Your task to perform on an android device: change your default location settings in chrome Image 0: 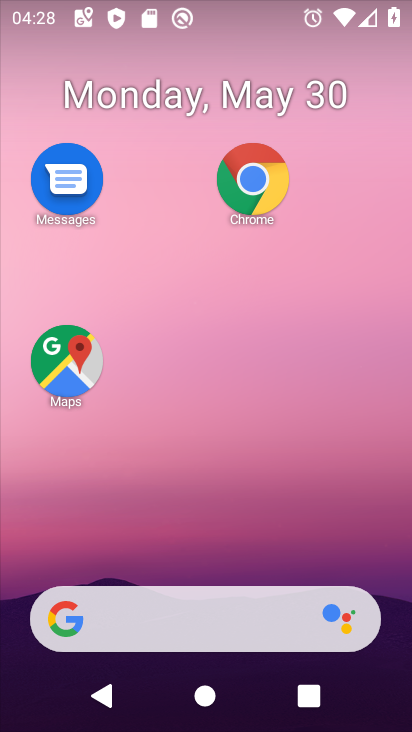
Step 0: drag from (231, 559) to (245, 11)
Your task to perform on an android device: change your default location settings in chrome Image 1: 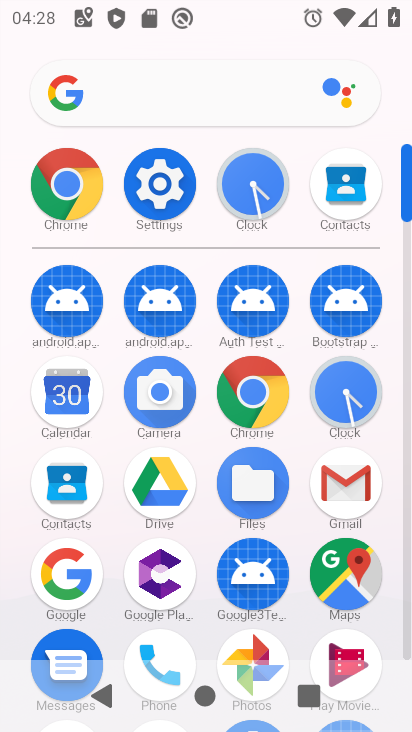
Step 1: click (235, 402)
Your task to perform on an android device: change your default location settings in chrome Image 2: 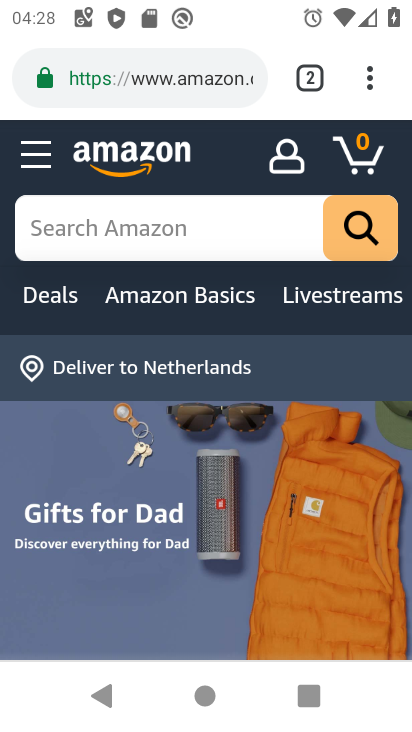
Step 2: click (361, 79)
Your task to perform on an android device: change your default location settings in chrome Image 3: 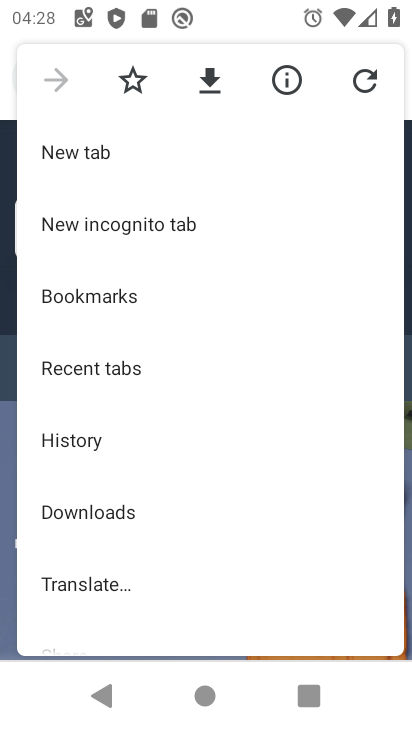
Step 3: drag from (80, 524) to (86, 129)
Your task to perform on an android device: change your default location settings in chrome Image 4: 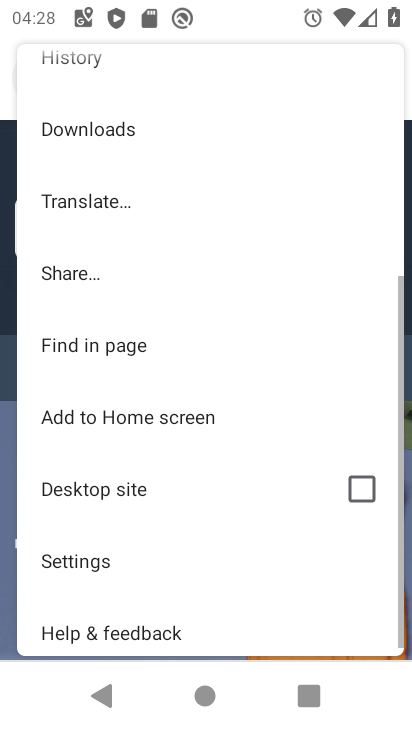
Step 4: click (87, 571)
Your task to perform on an android device: change your default location settings in chrome Image 5: 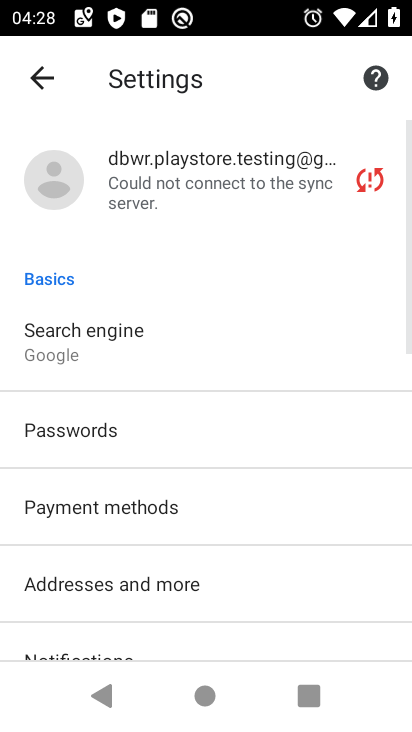
Step 5: drag from (111, 592) to (174, 184)
Your task to perform on an android device: change your default location settings in chrome Image 6: 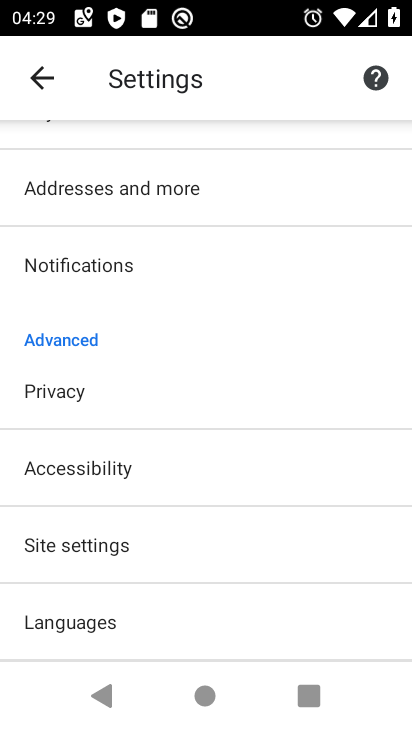
Step 6: click (101, 542)
Your task to perform on an android device: change your default location settings in chrome Image 7: 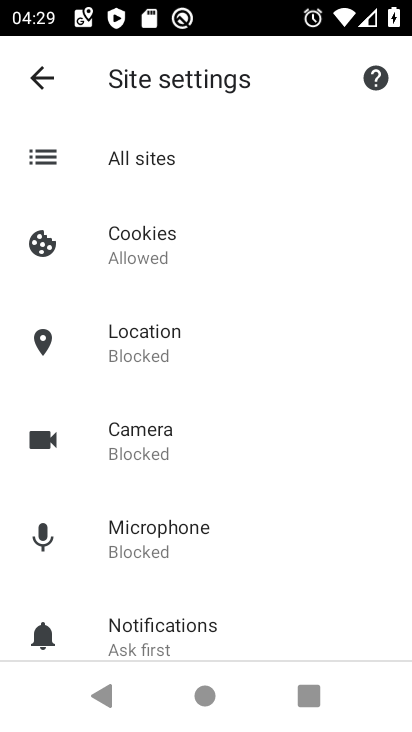
Step 7: click (139, 348)
Your task to perform on an android device: change your default location settings in chrome Image 8: 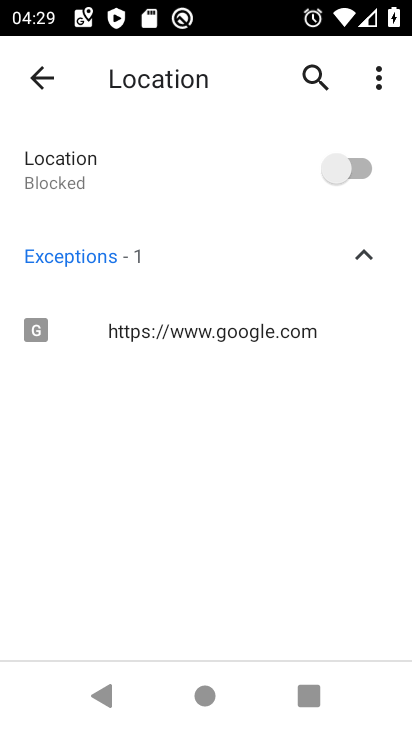
Step 8: click (375, 194)
Your task to perform on an android device: change your default location settings in chrome Image 9: 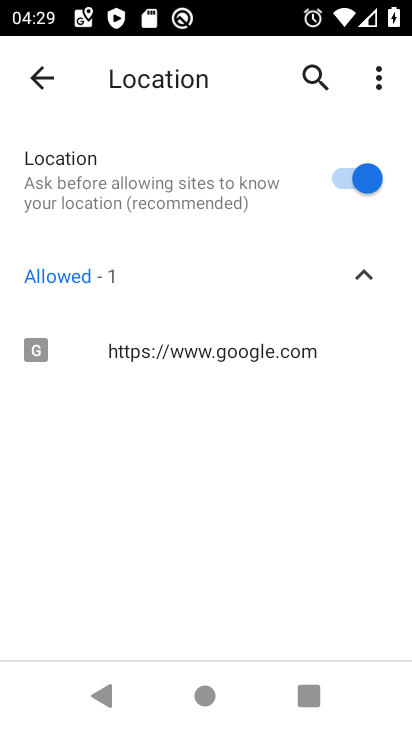
Step 9: task complete